Your task to perform on an android device: When is my next appointment? Image 0: 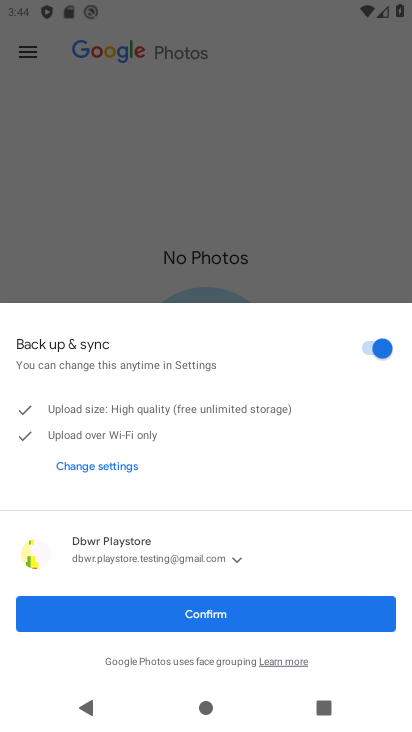
Step 0: press home button
Your task to perform on an android device: When is my next appointment? Image 1: 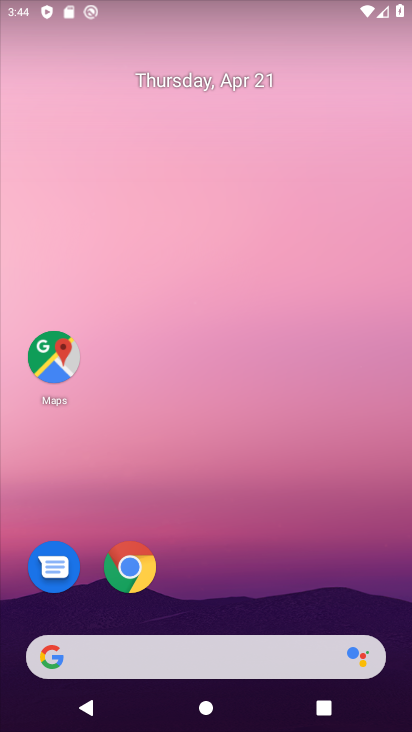
Step 1: drag from (199, 613) to (179, 29)
Your task to perform on an android device: When is my next appointment? Image 2: 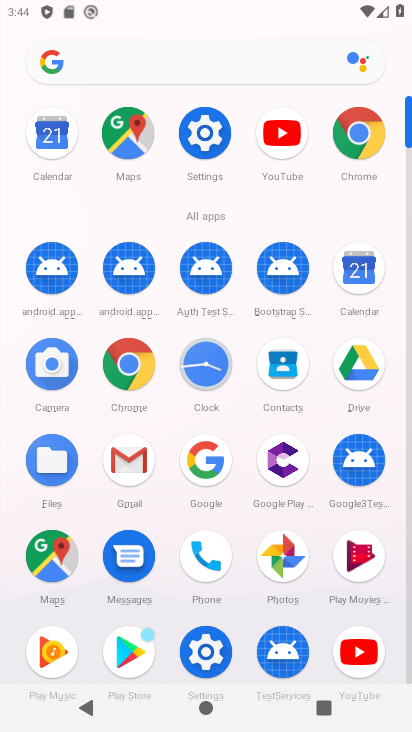
Step 2: click (355, 269)
Your task to perform on an android device: When is my next appointment? Image 3: 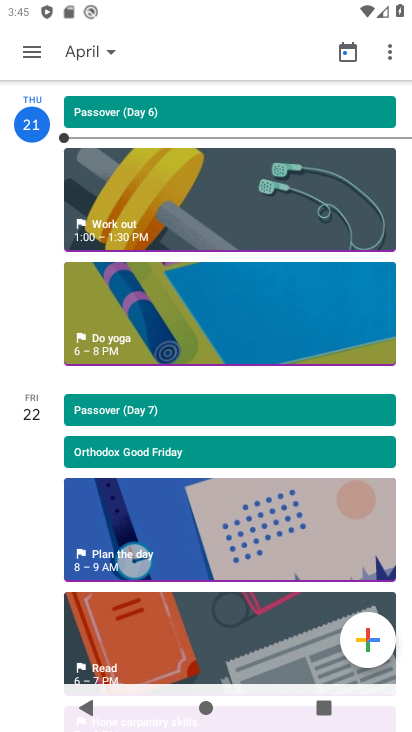
Step 3: click (101, 46)
Your task to perform on an android device: When is my next appointment? Image 4: 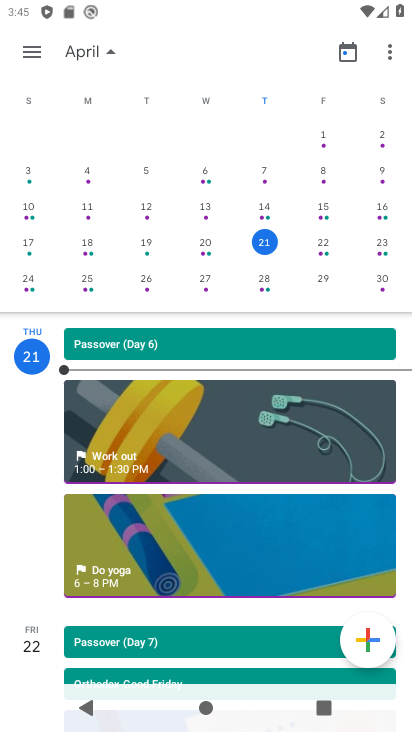
Step 4: task complete